Your task to perform on an android device: Open Reddit.com Image 0: 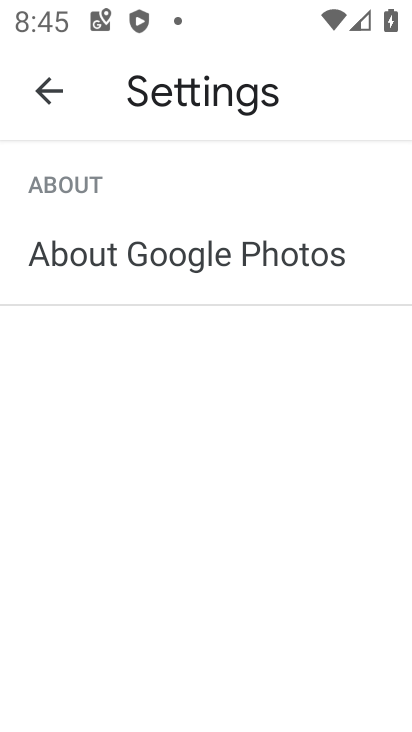
Step 0: press home button
Your task to perform on an android device: Open Reddit.com Image 1: 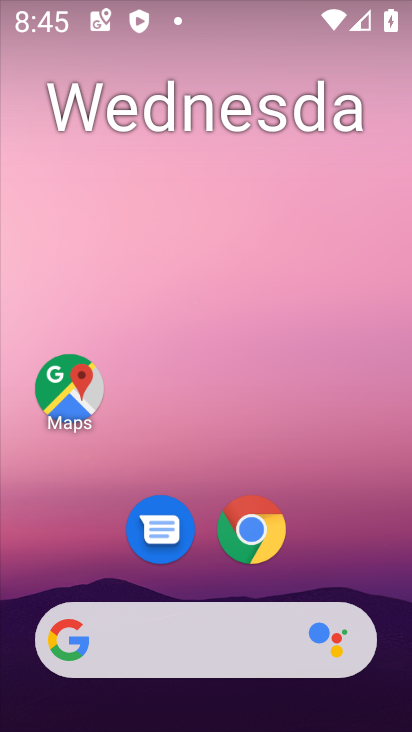
Step 1: click (257, 526)
Your task to perform on an android device: Open Reddit.com Image 2: 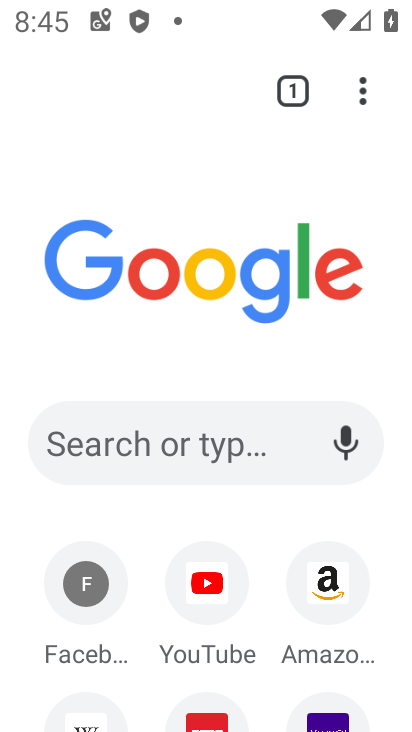
Step 2: click (194, 409)
Your task to perform on an android device: Open Reddit.com Image 3: 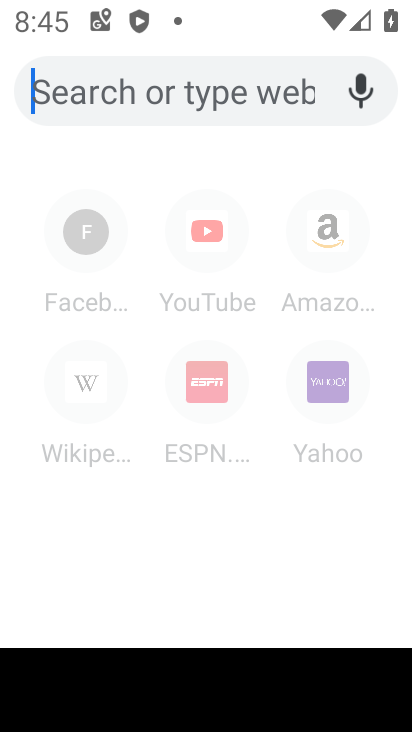
Step 3: type " Reddit.com"
Your task to perform on an android device: Open Reddit.com Image 4: 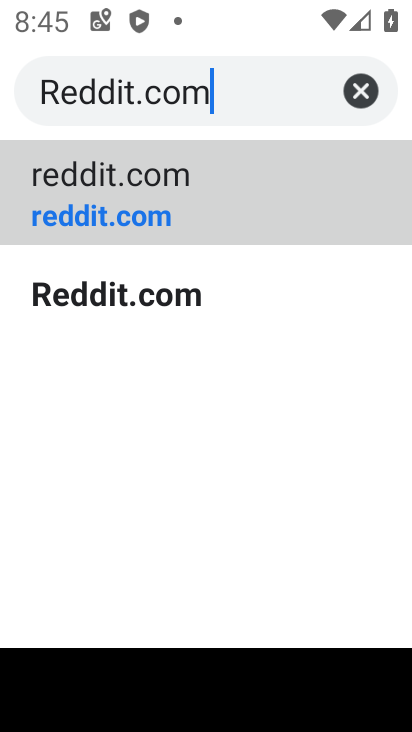
Step 4: click (123, 187)
Your task to perform on an android device: Open Reddit.com Image 5: 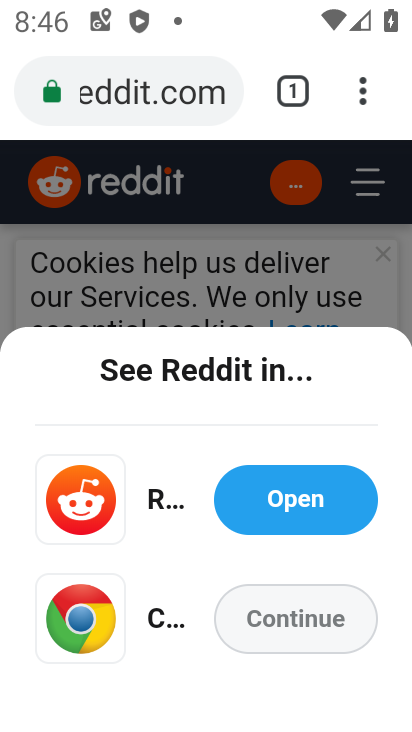
Step 5: task complete